Your task to perform on an android device: Open privacy settings Image 0: 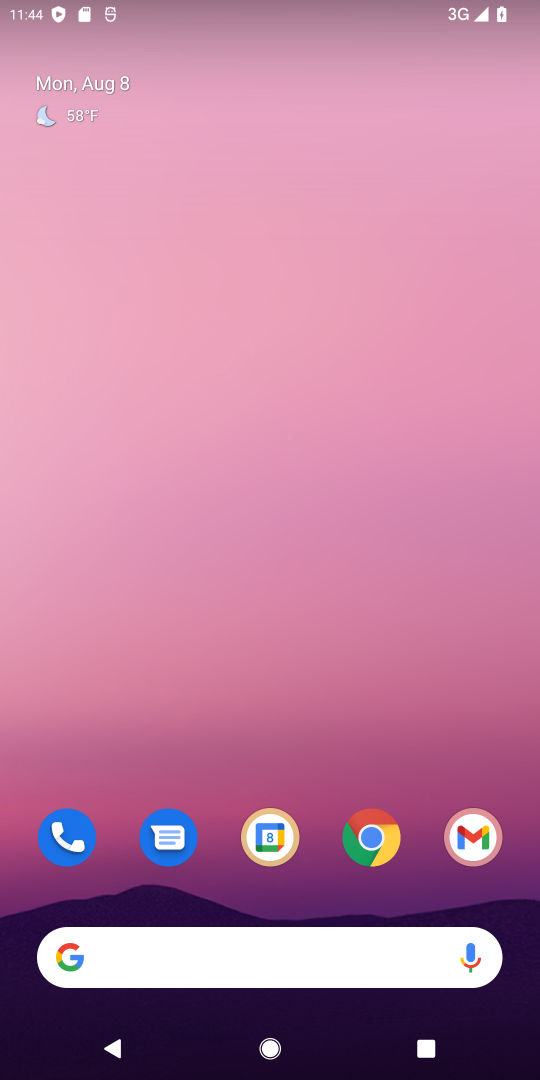
Step 0: drag from (510, 795) to (522, 252)
Your task to perform on an android device: Open privacy settings Image 1: 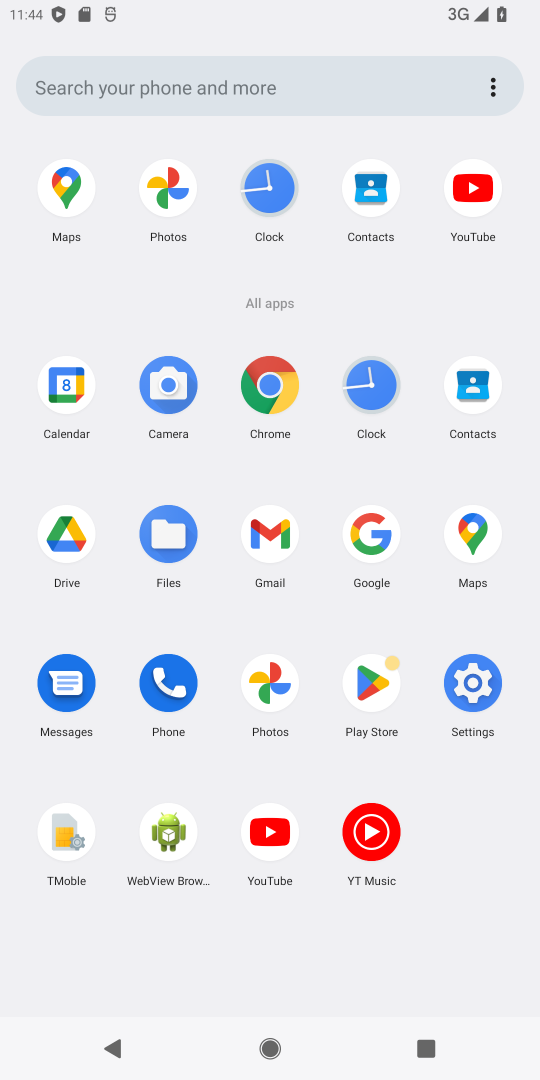
Step 1: click (484, 683)
Your task to perform on an android device: Open privacy settings Image 2: 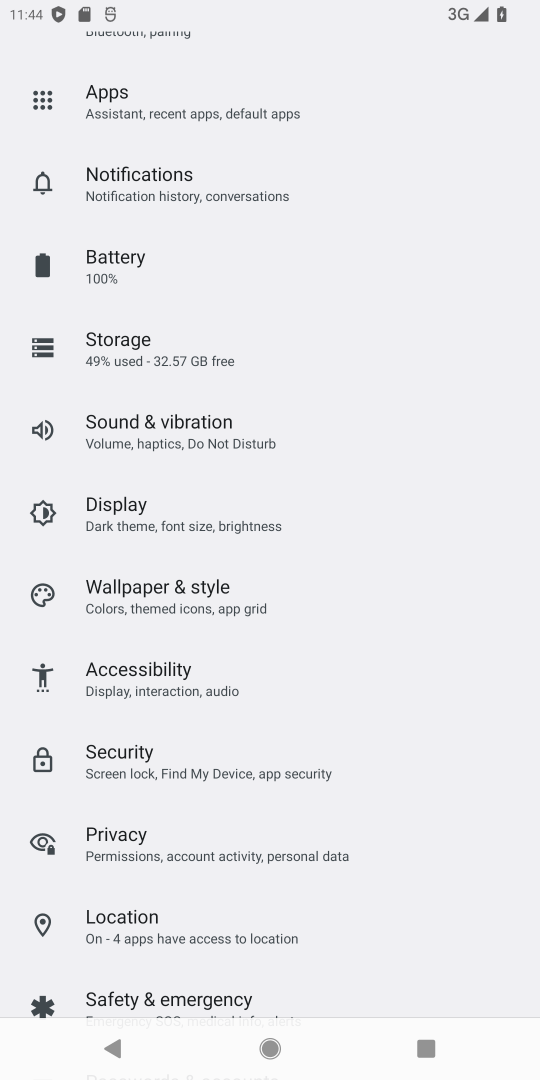
Step 2: click (118, 840)
Your task to perform on an android device: Open privacy settings Image 3: 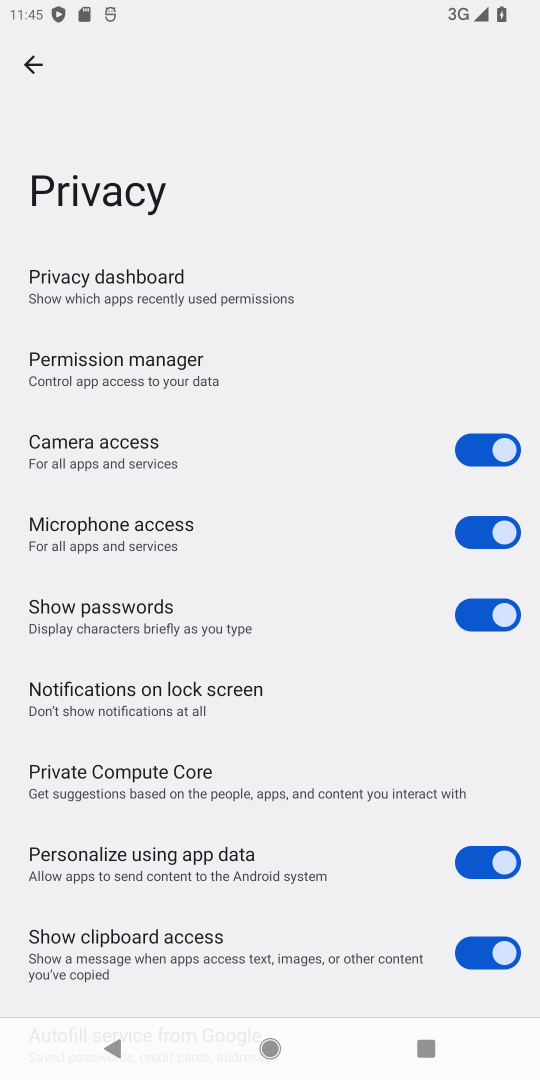
Step 3: task complete